Your task to perform on an android device: check data usage Image 0: 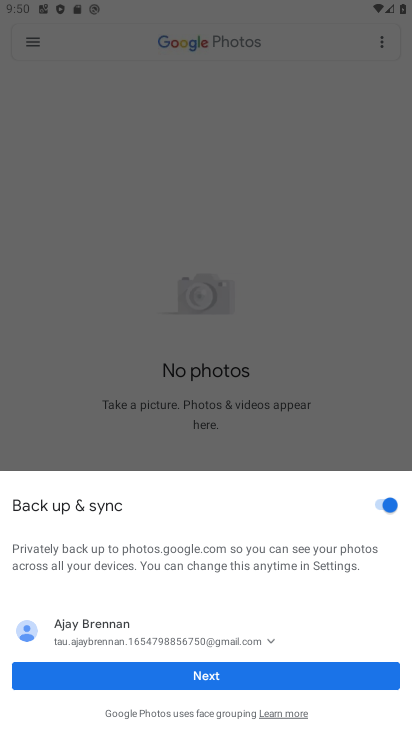
Step 0: press home button
Your task to perform on an android device: check data usage Image 1: 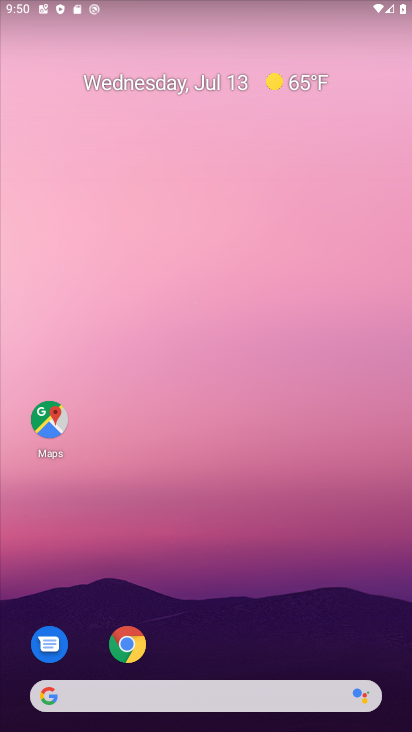
Step 1: drag from (247, 561) to (282, 47)
Your task to perform on an android device: check data usage Image 2: 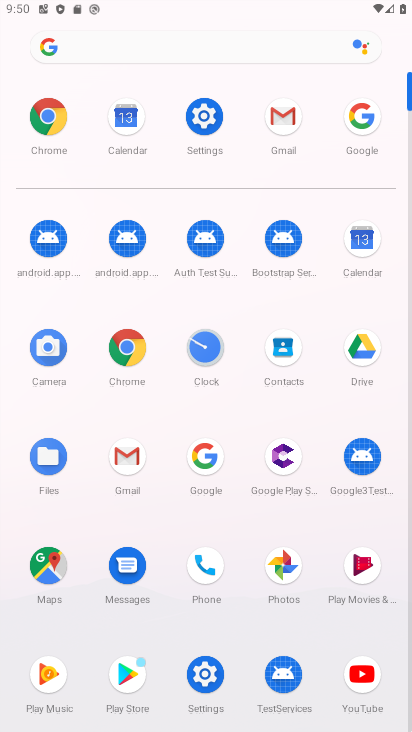
Step 2: click (199, 120)
Your task to perform on an android device: check data usage Image 3: 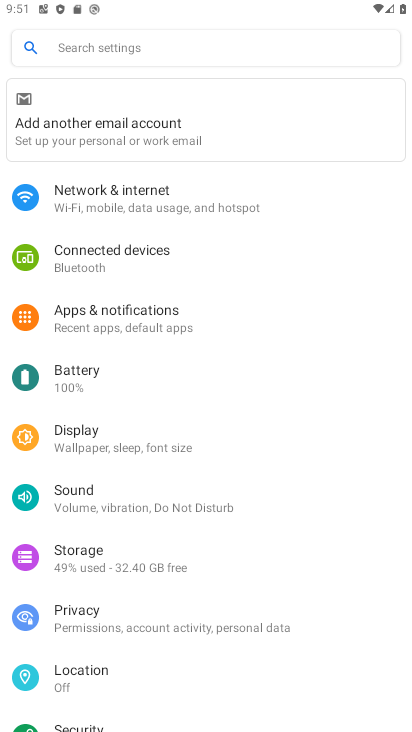
Step 3: click (122, 208)
Your task to perform on an android device: check data usage Image 4: 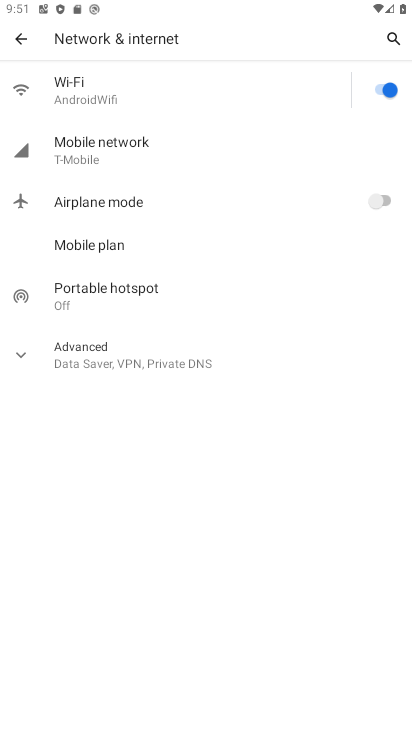
Step 4: click (88, 151)
Your task to perform on an android device: check data usage Image 5: 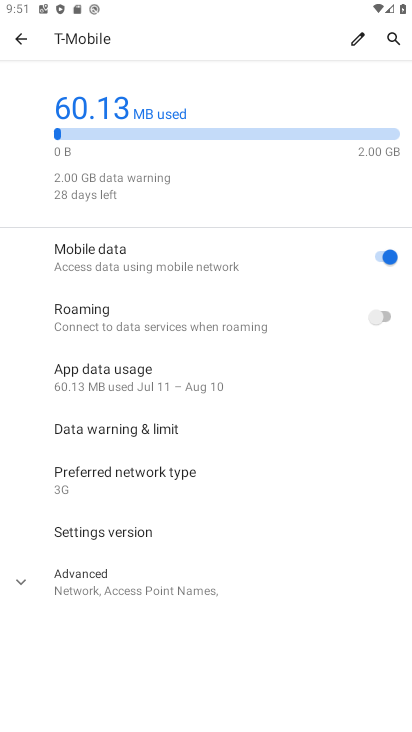
Step 5: task complete